Your task to perform on an android device: toggle improve location accuracy Image 0: 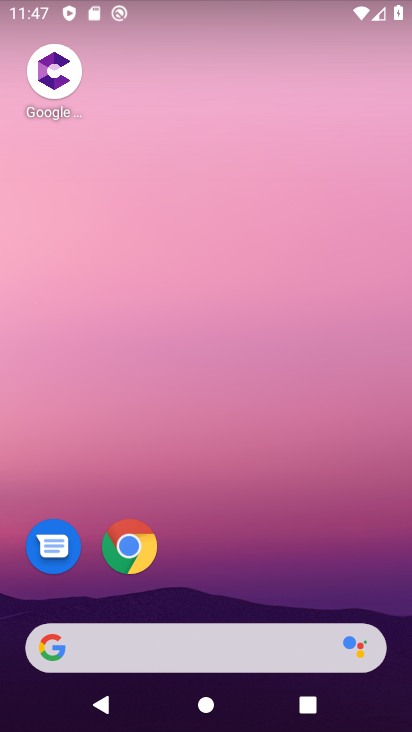
Step 0: drag from (200, 561) to (281, 8)
Your task to perform on an android device: toggle improve location accuracy Image 1: 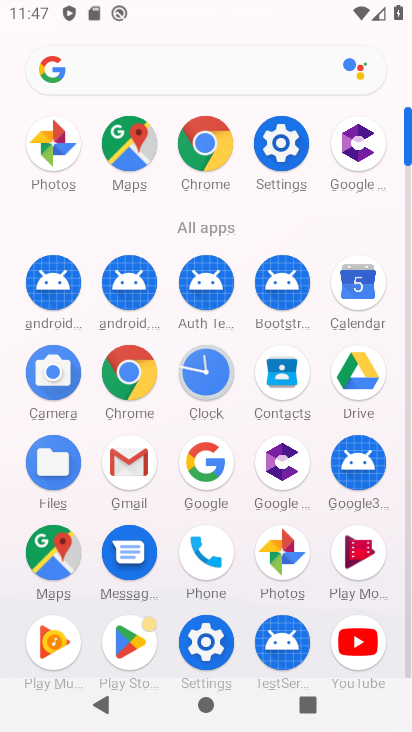
Step 1: click (217, 652)
Your task to perform on an android device: toggle improve location accuracy Image 2: 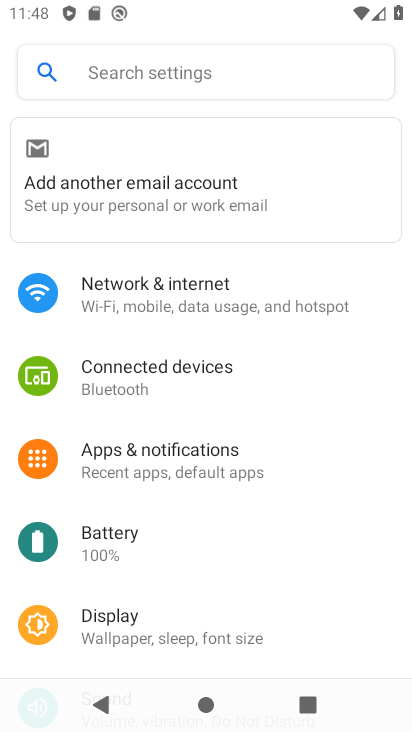
Step 2: drag from (197, 546) to (227, 118)
Your task to perform on an android device: toggle improve location accuracy Image 3: 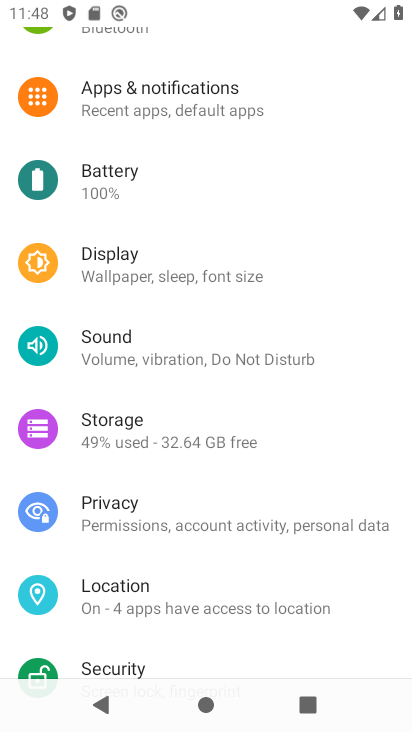
Step 3: click (183, 608)
Your task to perform on an android device: toggle improve location accuracy Image 4: 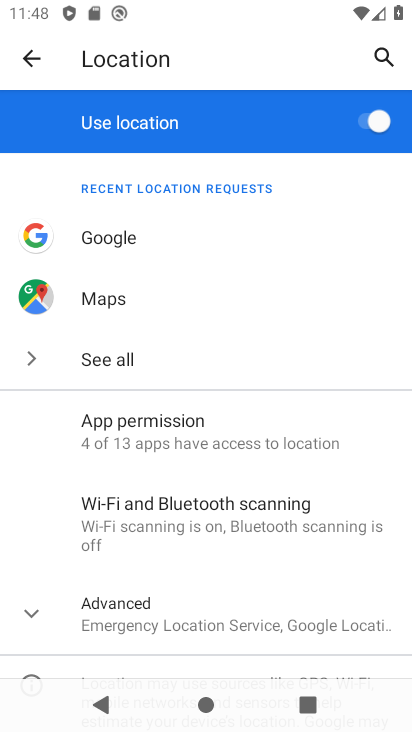
Step 4: click (181, 607)
Your task to perform on an android device: toggle improve location accuracy Image 5: 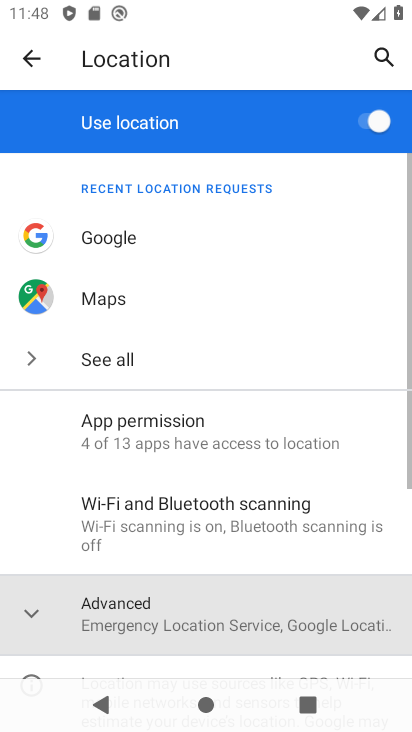
Step 5: drag from (183, 593) to (238, 158)
Your task to perform on an android device: toggle improve location accuracy Image 6: 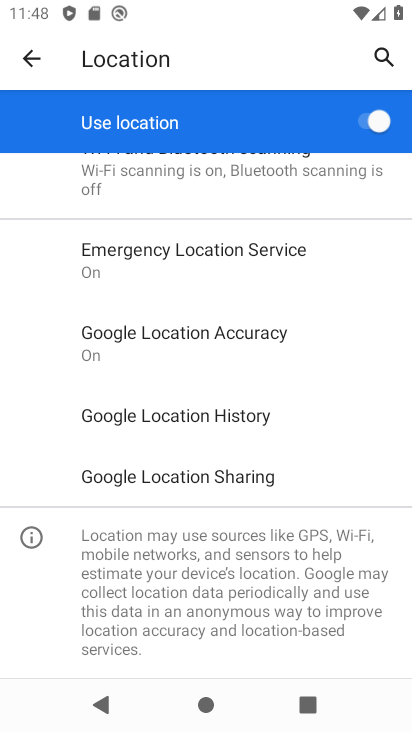
Step 6: click (246, 398)
Your task to perform on an android device: toggle improve location accuracy Image 7: 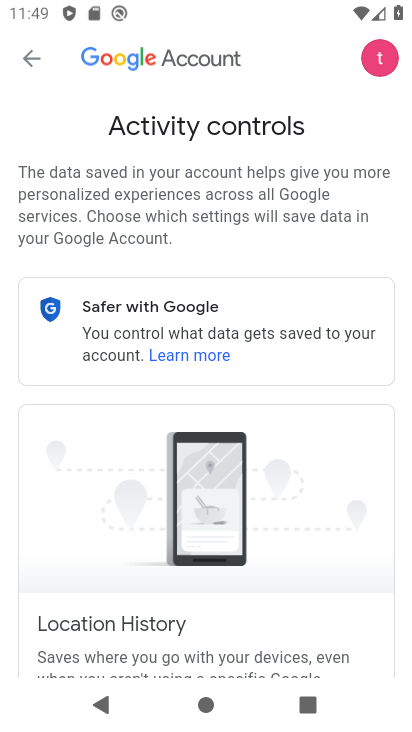
Step 7: drag from (324, 588) to (313, 152)
Your task to perform on an android device: toggle improve location accuracy Image 8: 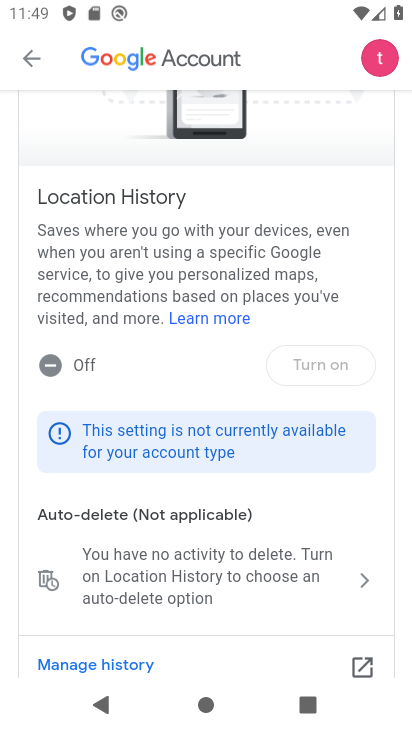
Step 8: click (331, 565)
Your task to perform on an android device: toggle improve location accuracy Image 9: 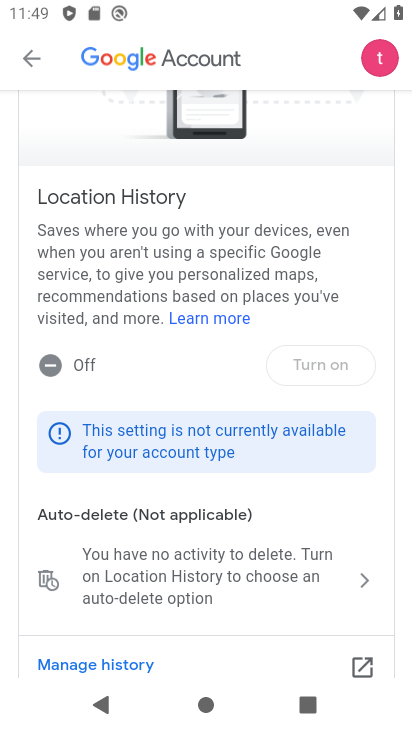
Step 9: click (337, 566)
Your task to perform on an android device: toggle improve location accuracy Image 10: 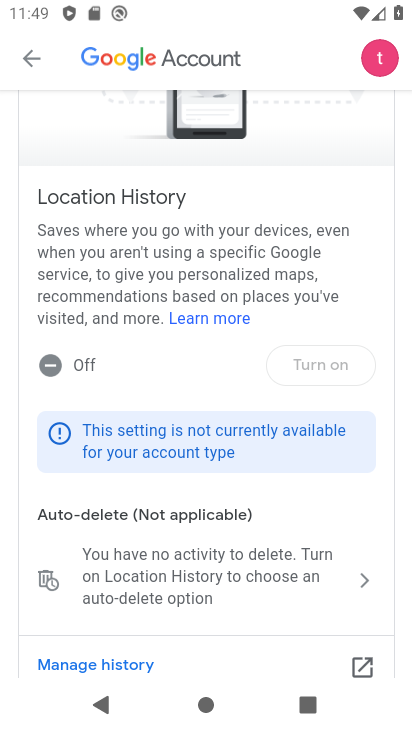
Step 10: drag from (308, 573) to (306, 292)
Your task to perform on an android device: toggle improve location accuracy Image 11: 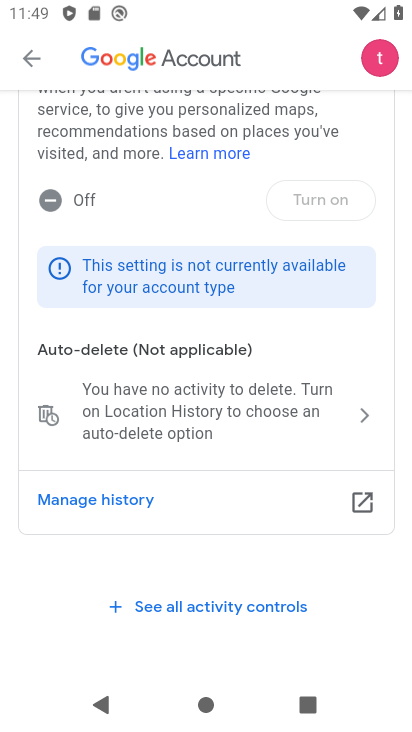
Step 11: click (316, 402)
Your task to perform on an android device: toggle improve location accuracy Image 12: 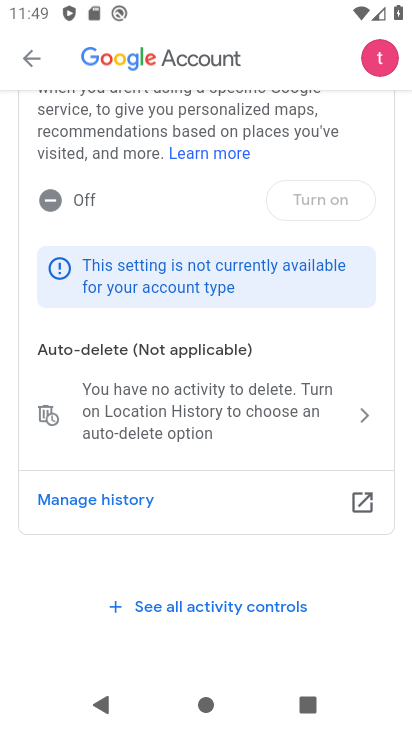
Step 12: click (358, 411)
Your task to perform on an android device: toggle improve location accuracy Image 13: 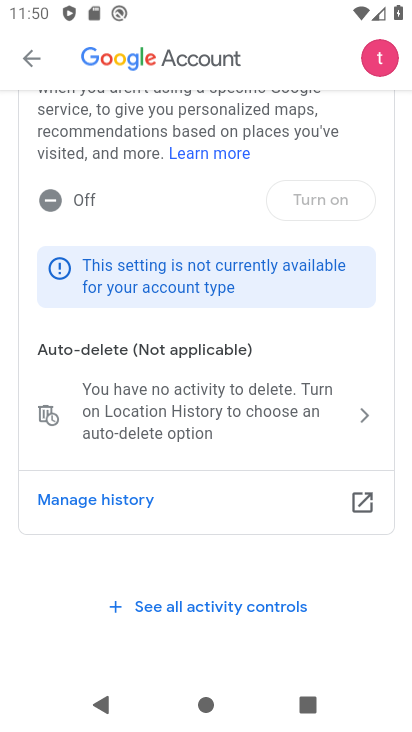
Step 13: click (355, 414)
Your task to perform on an android device: toggle improve location accuracy Image 14: 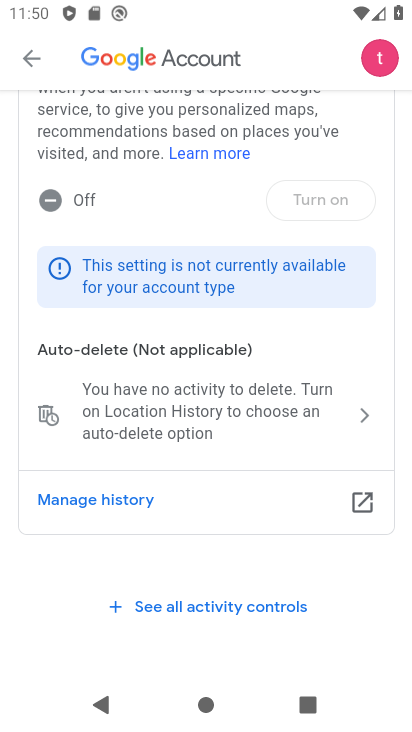
Step 14: click (362, 513)
Your task to perform on an android device: toggle improve location accuracy Image 15: 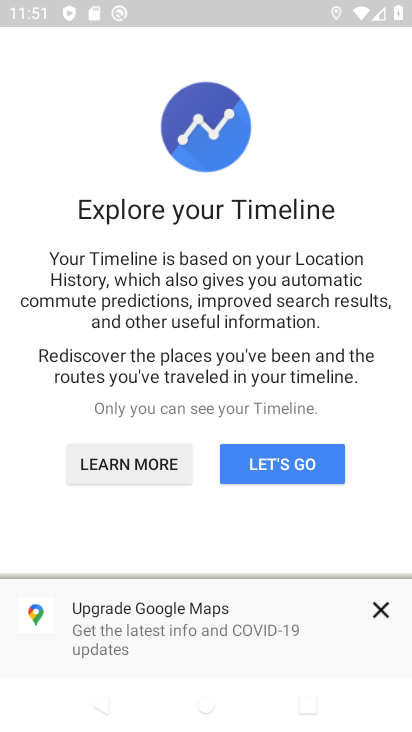
Step 15: click (386, 595)
Your task to perform on an android device: toggle improve location accuracy Image 16: 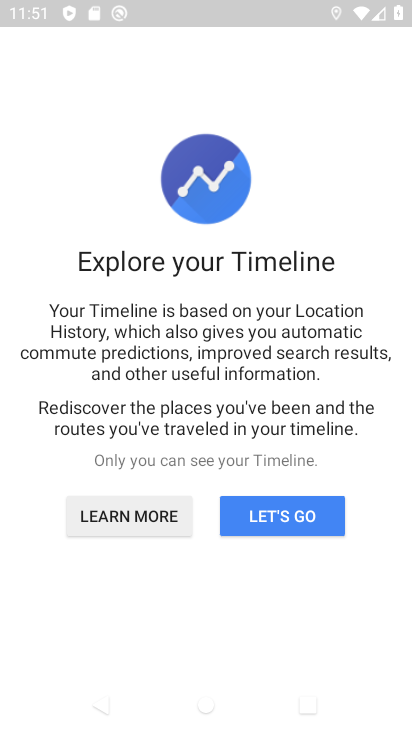
Step 16: click (297, 510)
Your task to perform on an android device: toggle improve location accuracy Image 17: 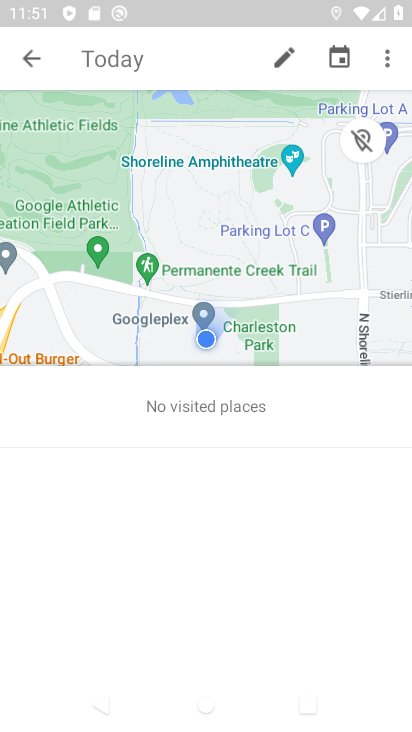
Step 17: click (297, 510)
Your task to perform on an android device: toggle improve location accuracy Image 18: 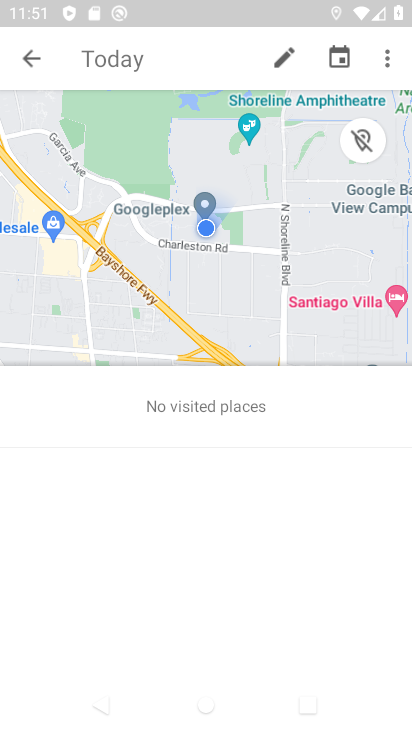
Step 18: press back button
Your task to perform on an android device: toggle improve location accuracy Image 19: 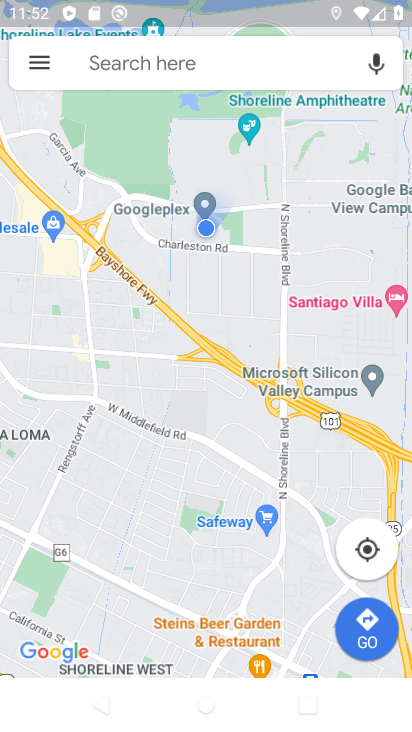
Step 19: press home button
Your task to perform on an android device: toggle improve location accuracy Image 20: 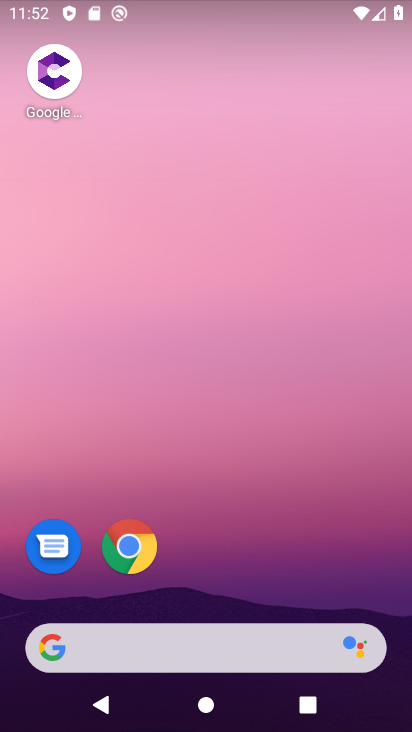
Step 20: drag from (323, 553) to (309, 9)
Your task to perform on an android device: toggle improve location accuracy Image 21: 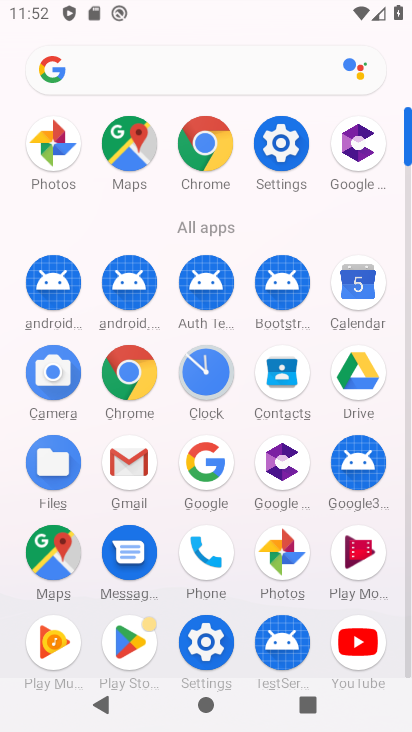
Step 21: click (206, 639)
Your task to perform on an android device: toggle improve location accuracy Image 22: 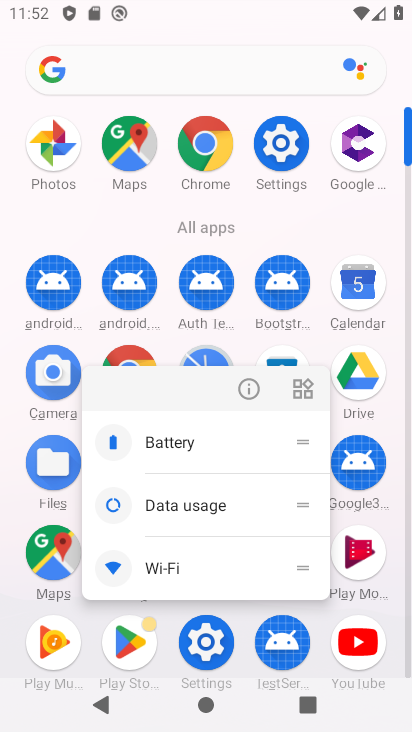
Step 22: click (211, 643)
Your task to perform on an android device: toggle improve location accuracy Image 23: 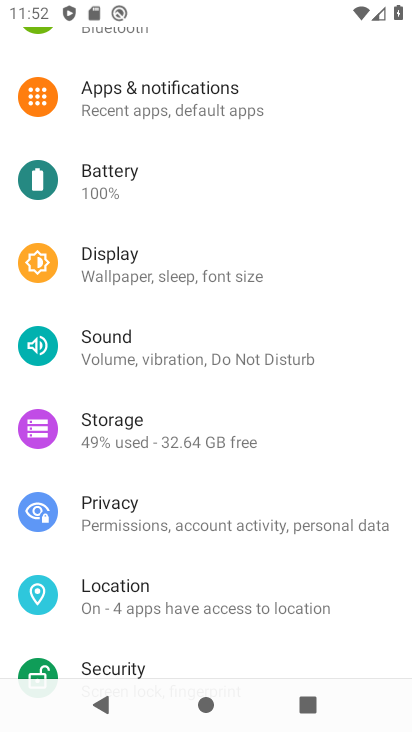
Step 23: click (150, 597)
Your task to perform on an android device: toggle improve location accuracy Image 24: 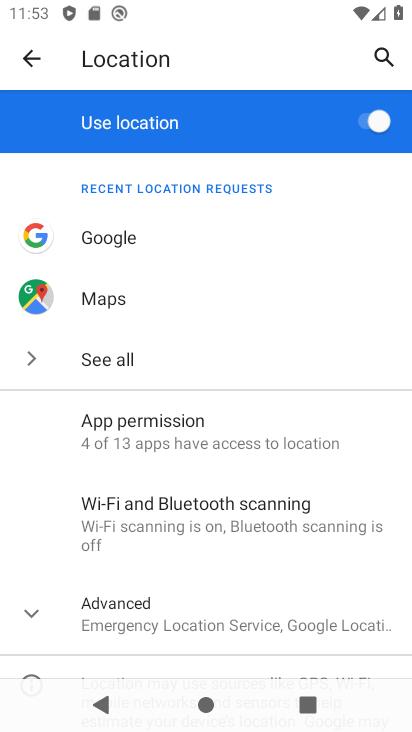
Step 24: click (189, 629)
Your task to perform on an android device: toggle improve location accuracy Image 25: 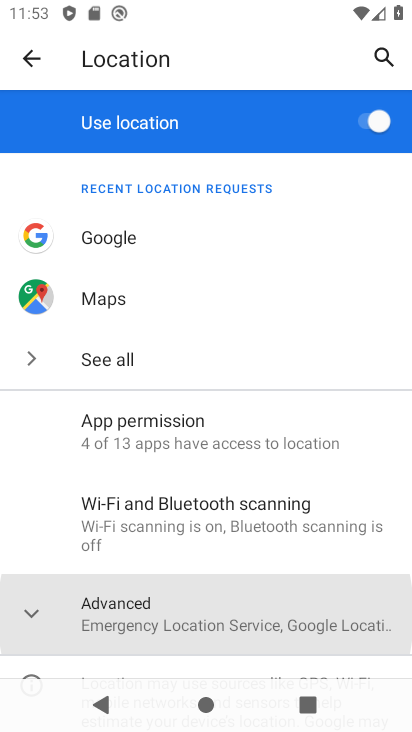
Step 25: drag from (190, 596) to (196, 49)
Your task to perform on an android device: toggle improve location accuracy Image 26: 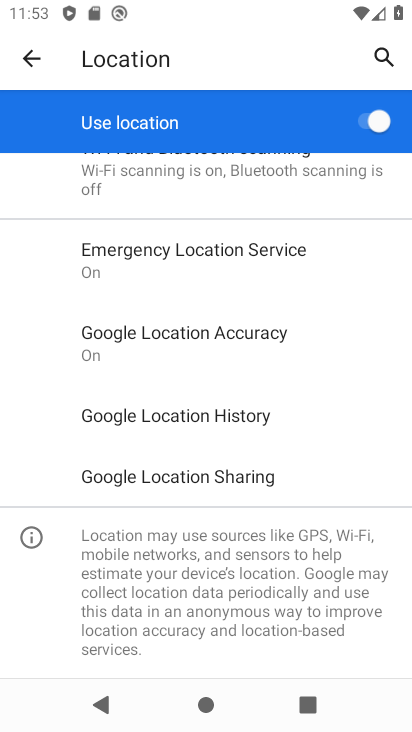
Step 26: click (251, 347)
Your task to perform on an android device: toggle improve location accuracy Image 27: 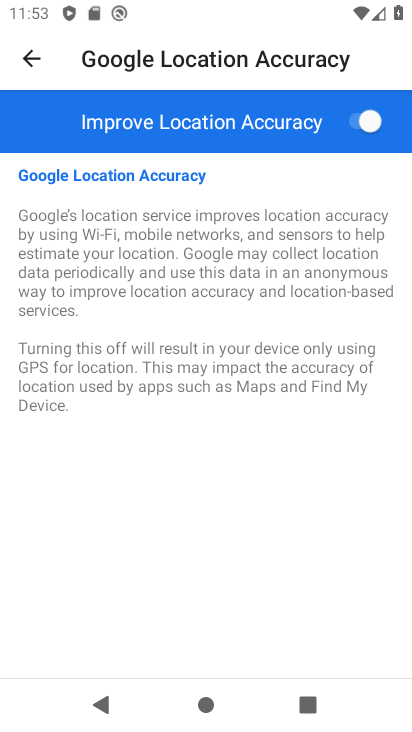
Step 27: click (358, 121)
Your task to perform on an android device: toggle improve location accuracy Image 28: 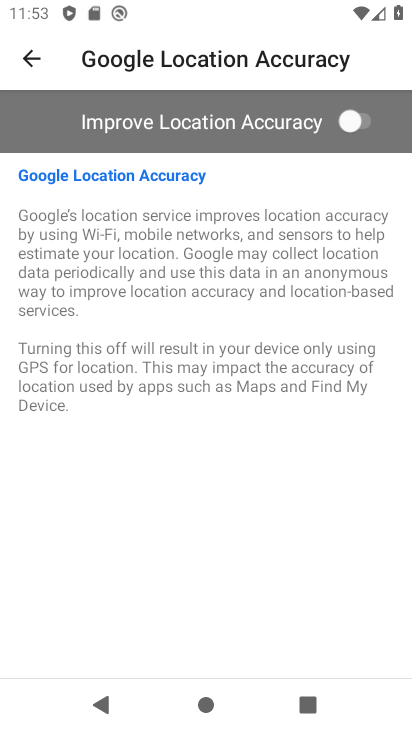
Step 28: task complete